Your task to perform on an android device: Empty the shopping cart on target.com. Add dell alienware to the cart on target.com Image 0: 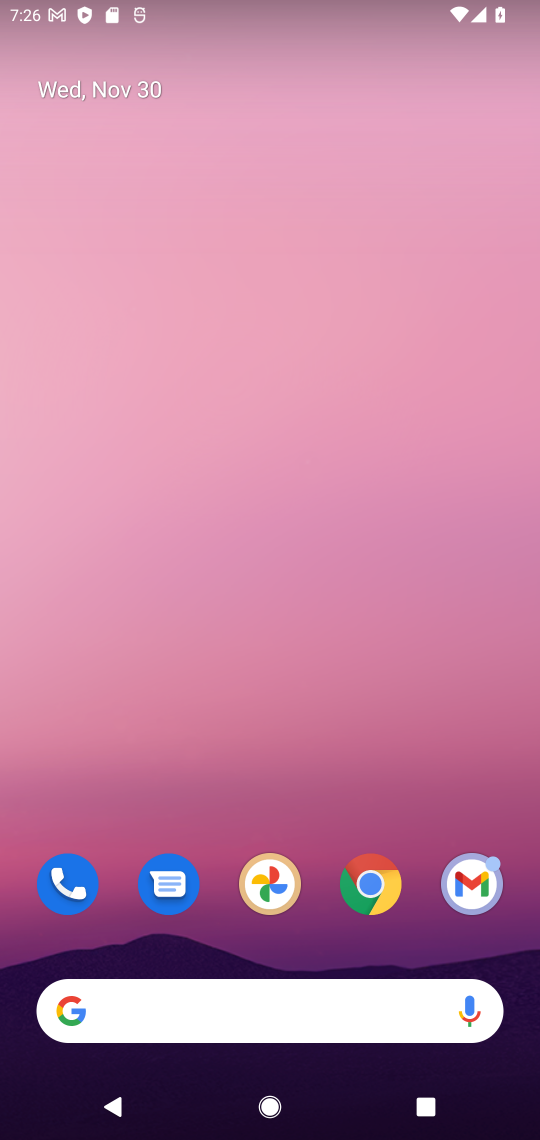
Step 0: click (377, 897)
Your task to perform on an android device: Empty the shopping cart on target.com. Add dell alienware to the cart on target.com Image 1: 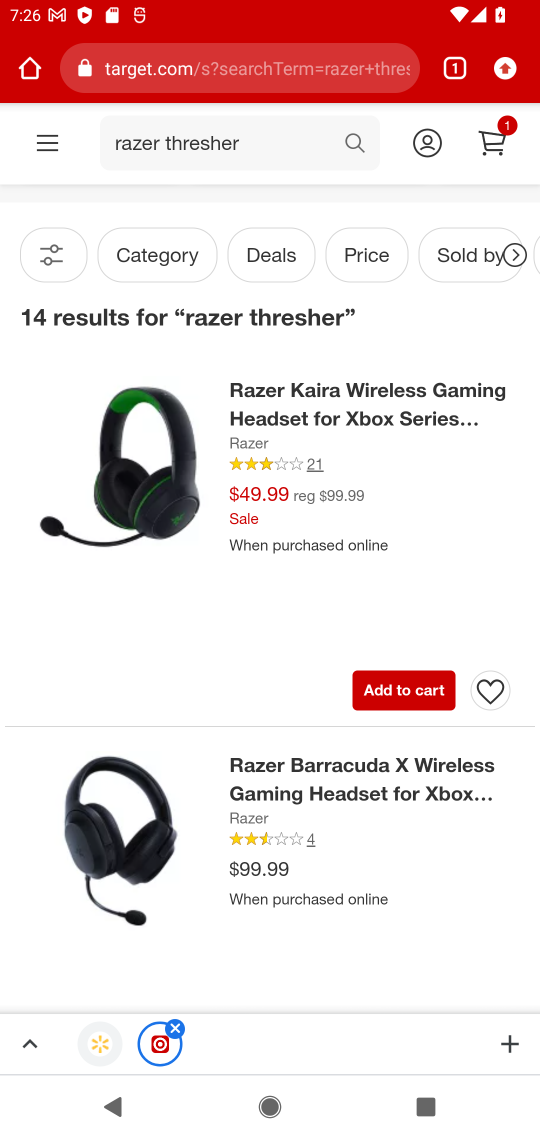
Step 1: click (489, 142)
Your task to perform on an android device: Empty the shopping cart on target.com. Add dell alienware to the cart on target.com Image 2: 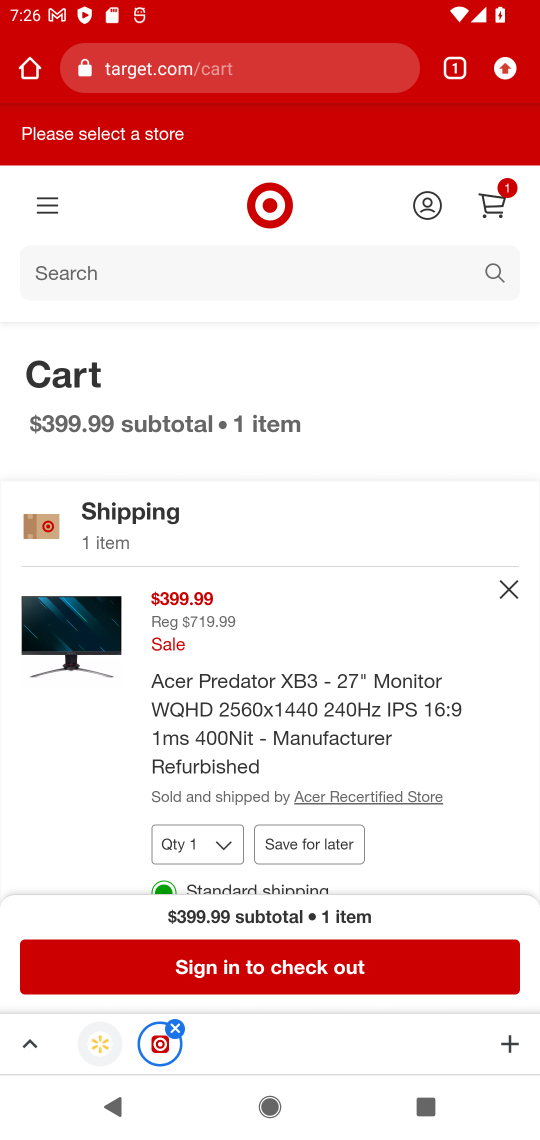
Step 2: click (510, 588)
Your task to perform on an android device: Empty the shopping cart on target.com. Add dell alienware to the cart on target.com Image 3: 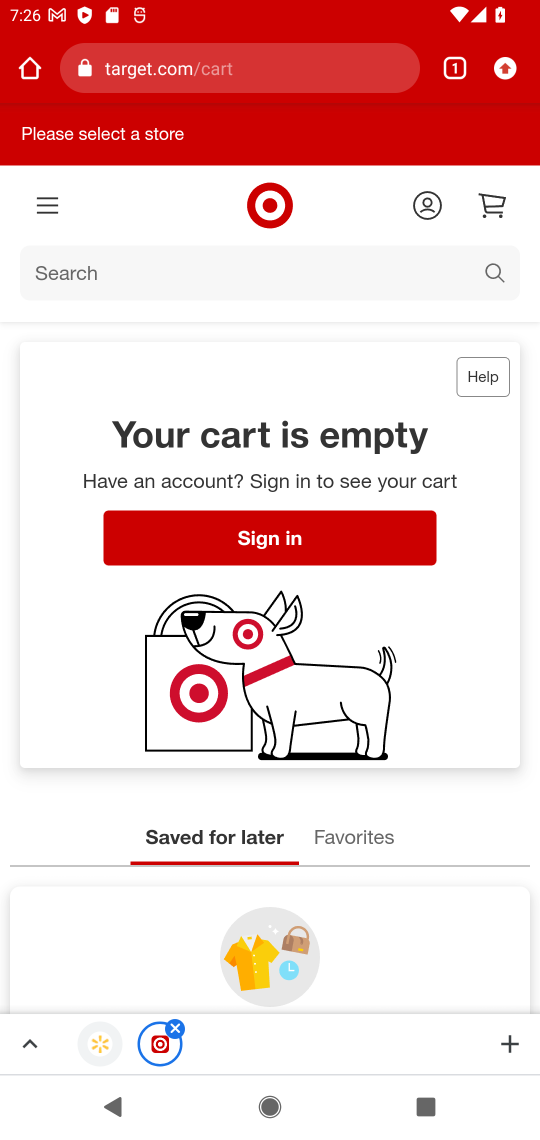
Step 3: click (60, 272)
Your task to perform on an android device: Empty the shopping cart on target.com. Add dell alienware to the cart on target.com Image 4: 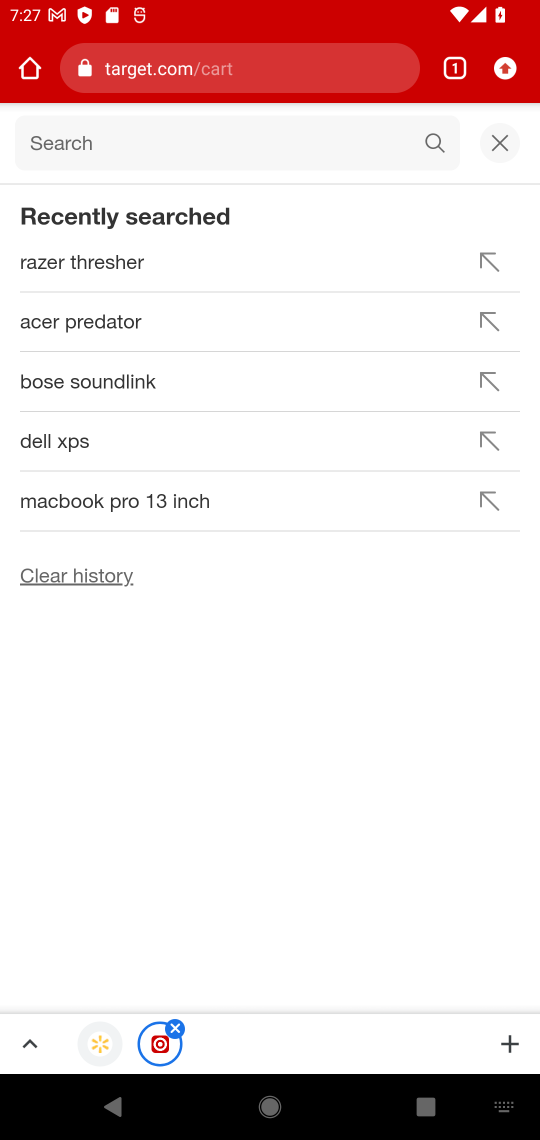
Step 4: type "dell alienware"
Your task to perform on an android device: Empty the shopping cart on target.com. Add dell alienware to the cart on target.com Image 5: 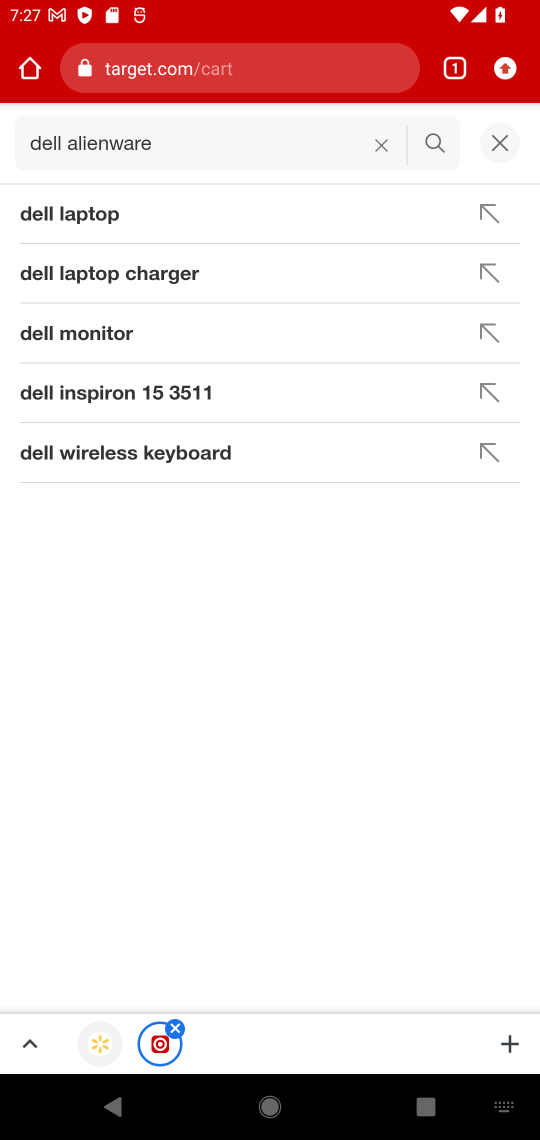
Step 5: click (428, 146)
Your task to perform on an android device: Empty the shopping cart on target.com. Add dell alienware to the cart on target.com Image 6: 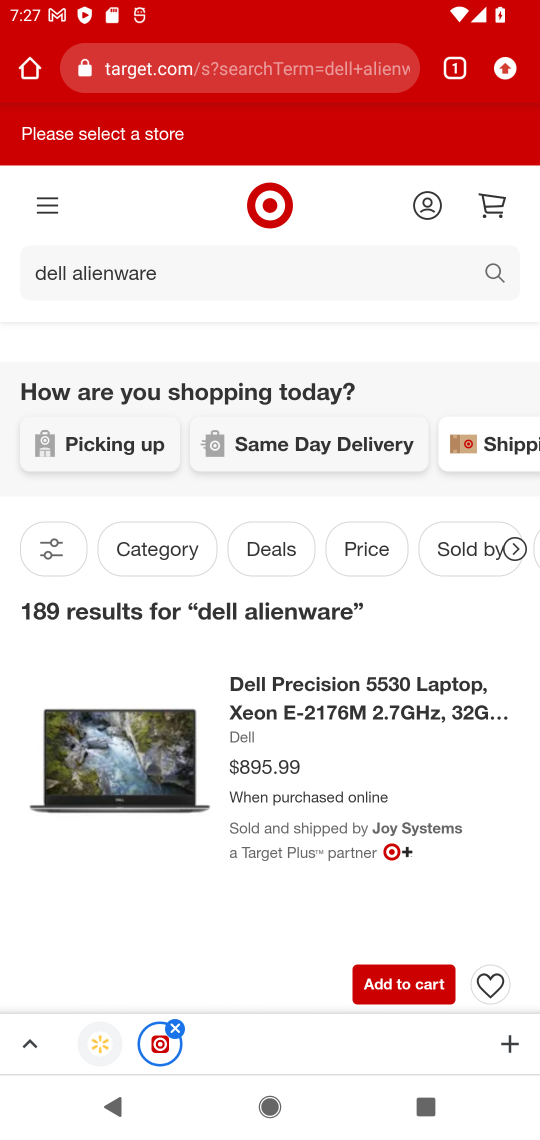
Step 6: task complete